Your task to perform on an android device: Set the phone to "Do not disturb". Image 0: 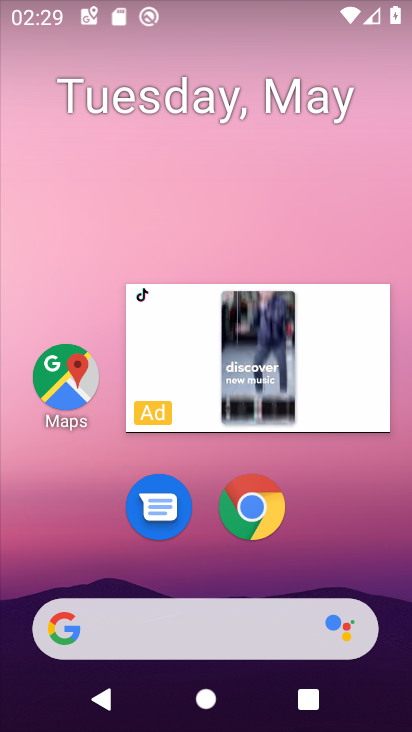
Step 0: click (353, 321)
Your task to perform on an android device: Set the phone to "Do not disturb". Image 1: 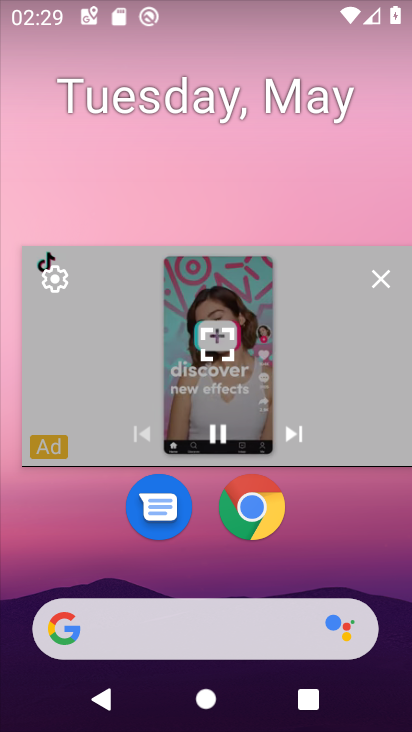
Step 1: click (380, 279)
Your task to perform on an android device: Set the phone to "Do not disturb". Image 2: 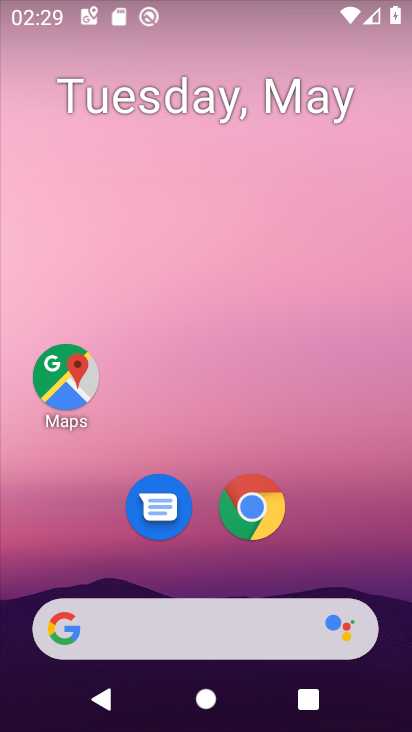
Step 2: drag from (224, 572) to (208, 176)
Your task to perform on an android device: Set the phone to "Do not disturb". Image 3: 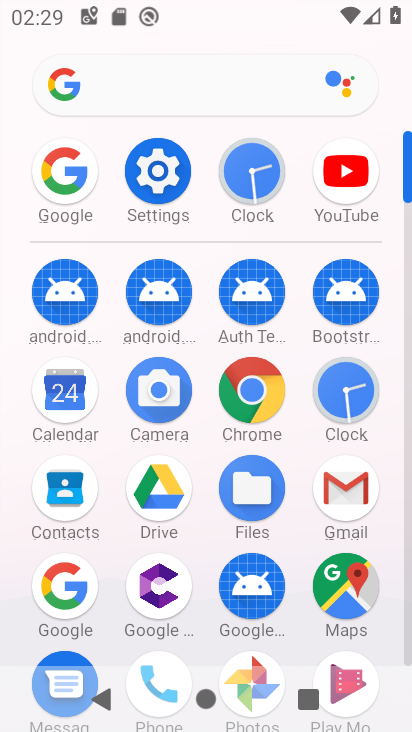
Step 3: click (182, 156)
Your task to perform on an android device: Set the phone to "Do not disturb". Image 4: 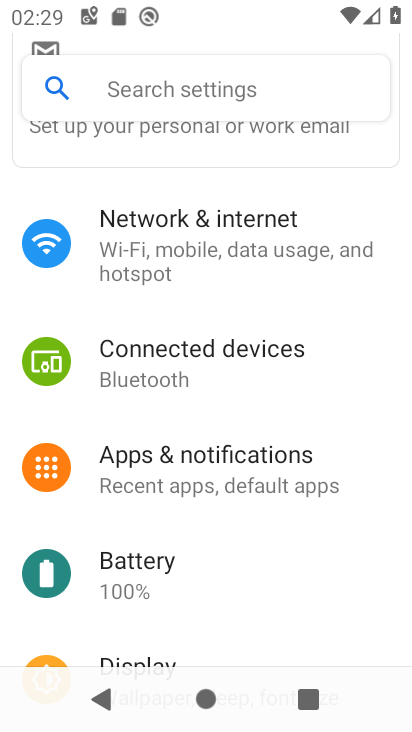
Step 4: drag from (203, 589) to (234, 339)
Your task to perform on an android device: Set the phone to "Do not disturb". Image 5: 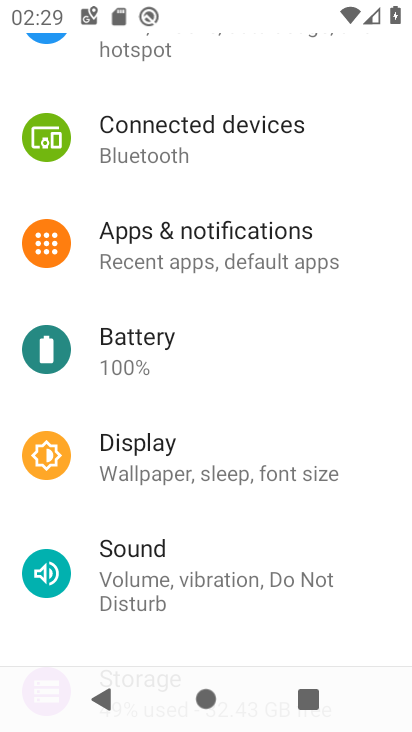
Step 5: click (205, 560)
Your task to perform on an android device: Set the phone to "Do not disturb". Image 6: 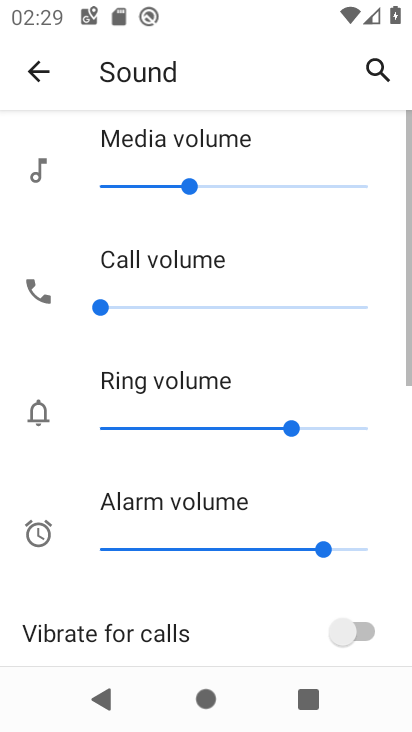
Step 6: drag from (209, 594) to (268, 247)
Your task to perform on an android device: Set the phone to "Do not disturb". Image 7: 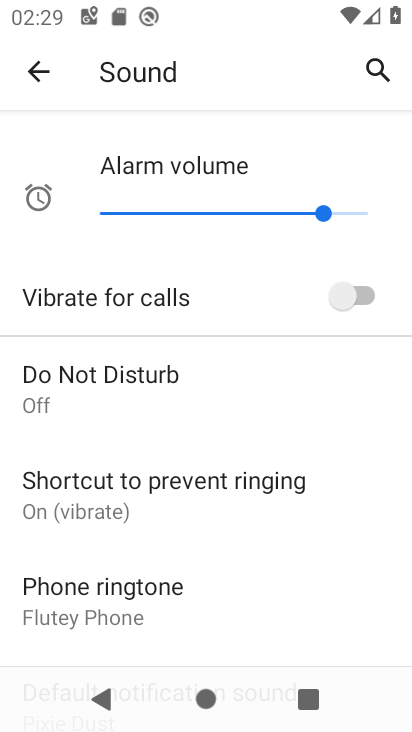
Step 7: click (141, 380)
Your task to perform on an android device: Set the phone to "Do not disturb". Image 8: 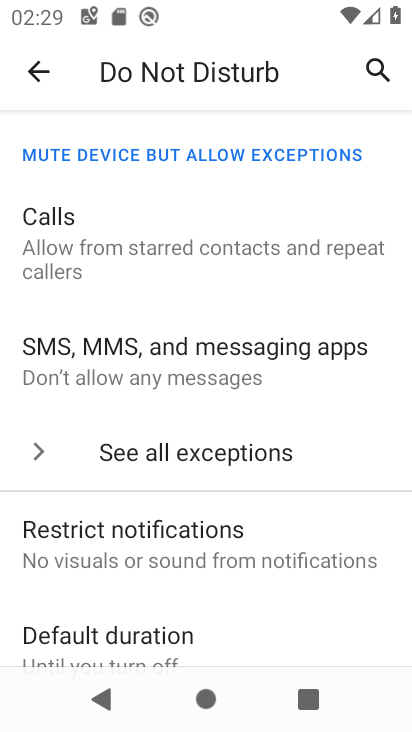
Step 8: drag from (179, 589) to (238, 304)
Your task to perform on an android device: Set the phone to "Do not disturb". Image 9: 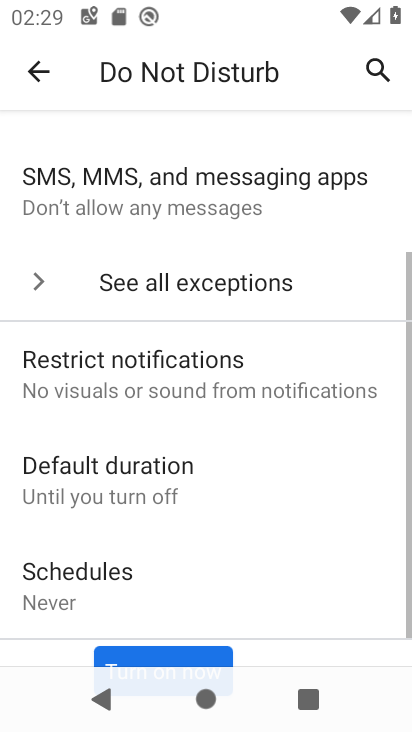
Step 9: drag from (164, 583) to (218, 360)
Your task to perform on an android device: Set the phone to "Do not disturb". Image 10: 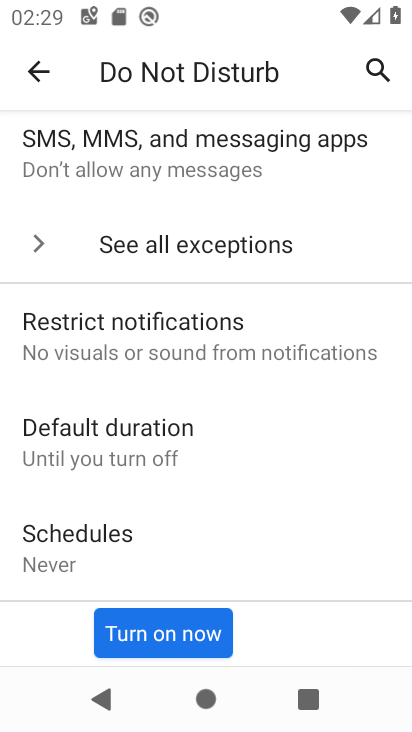
Step 10: click (174, 642)
Your task to perform on an android device: Set the phone to "Do not disturb". Image 11: 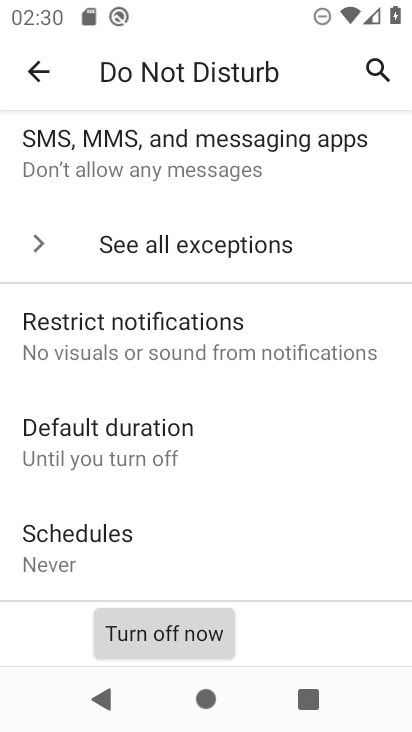
Step 11: task complete